Your task to perform on an android device: Open settings on Google Maps Image 0: 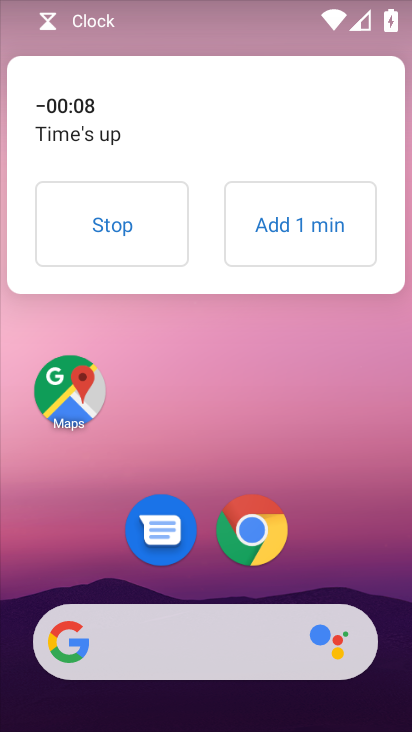
Step 0: drag from (349, 561) to (385, 150)
Your task to perform on an android device: Open settings on Google Maps Image 1: 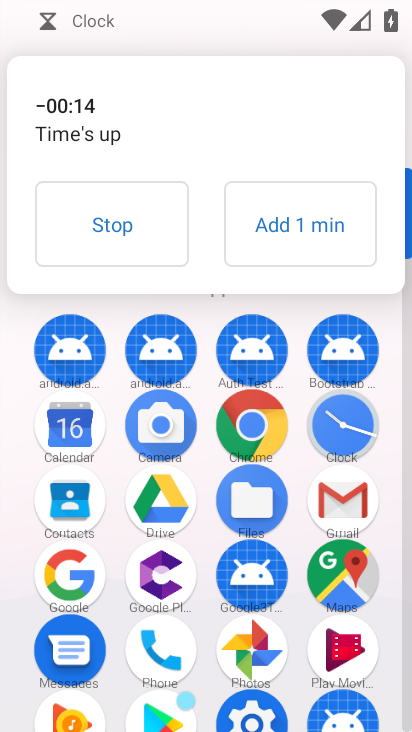
Step 1: click (369, 583)
Your task to perform on an android device: Open settings on Google Maps Image 2: 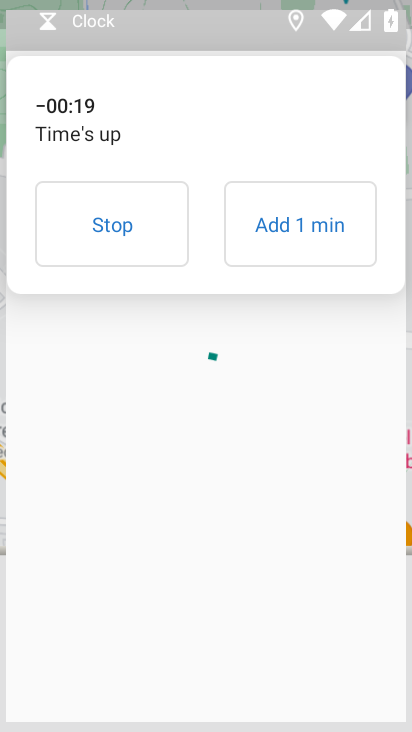
Step 2: click (103, 248)
Your task to perform on an android device: Open settings on Google Maps Image 3: 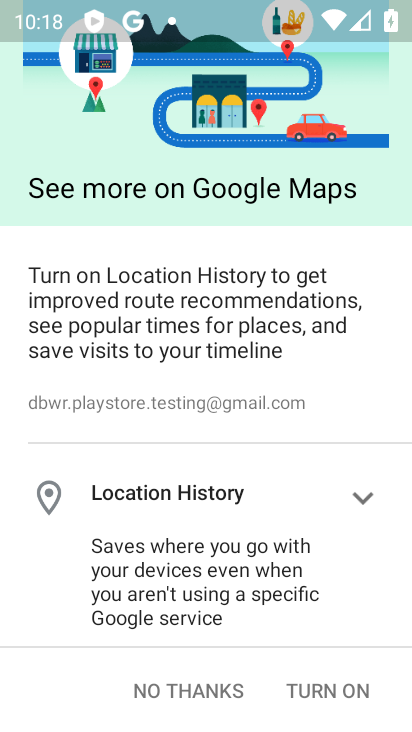
Step 3: click (222, 687)
Your task to perform on an android device: Open settings on Google Maps Image 4: 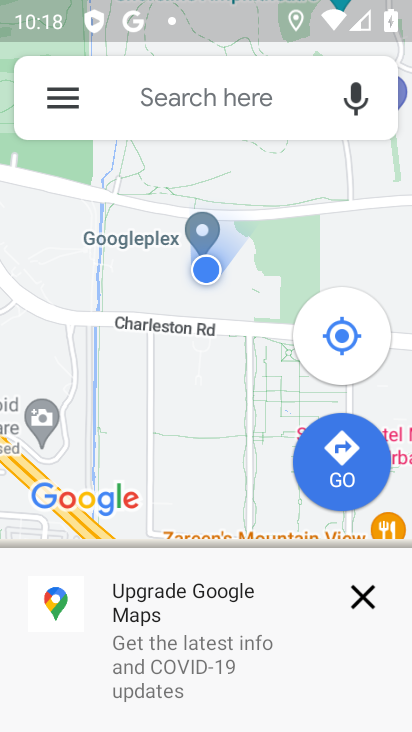
Step 4: click (48, 92)
Your task to perform on an android device: Open settings on Google Maps Image 5: 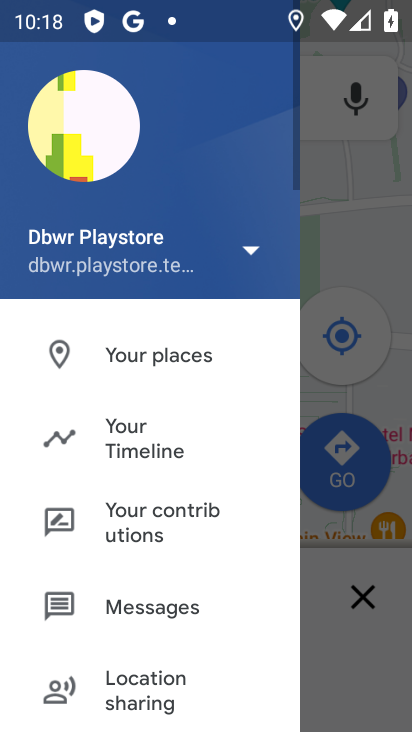
Step 5: drag from (231, 566) to (228, 458)
Your task to perform on an android device: Open settings on Google Maps Image 6: 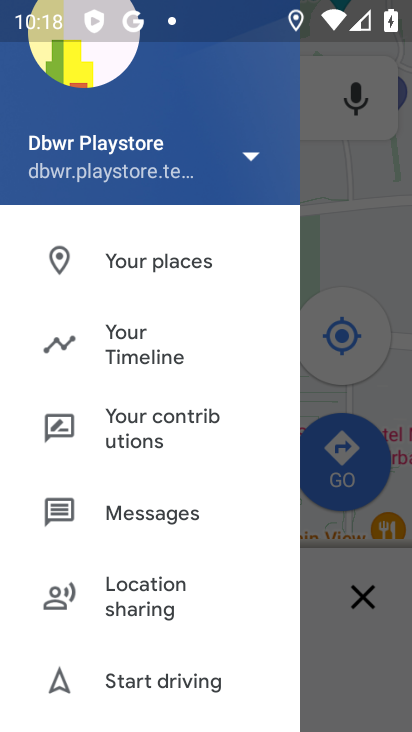
Step 6: drag from (247, 503) to (251, 468)
Your task to perform on an android device: Open settings on Google Maps Image 7: 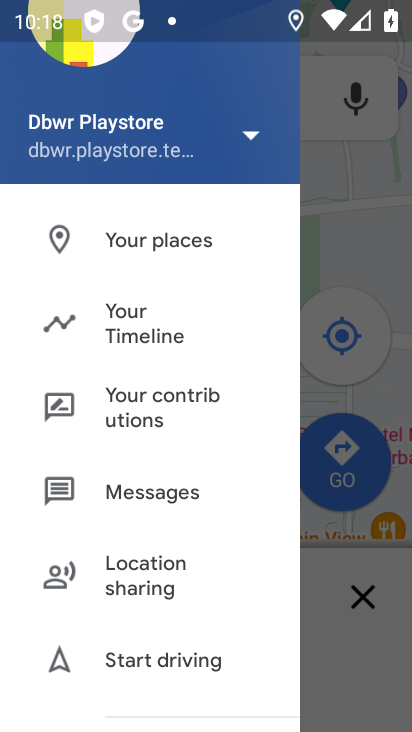
Step 7: drag from (225, 621) to (252, 437)
Your task to perform on an android device: Open settings on Google Maps Image 8: 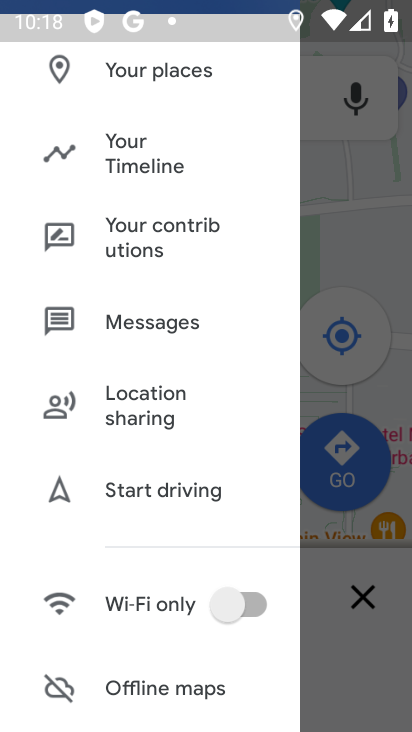
Step 8: drag from (244, 528) to (237, 384)
Your task to perform on an android device: Open settings on Google Maps Image 9: 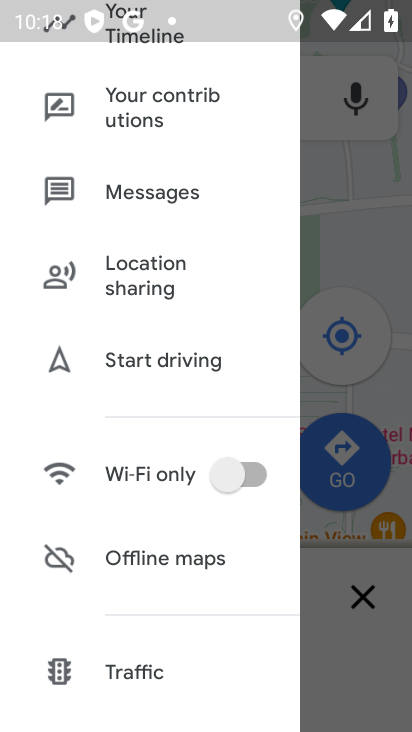
Step 9: drag from (226, 663) to (249, 427)
Your task to perform on an android device: Open settings on Google Maps Image 10: 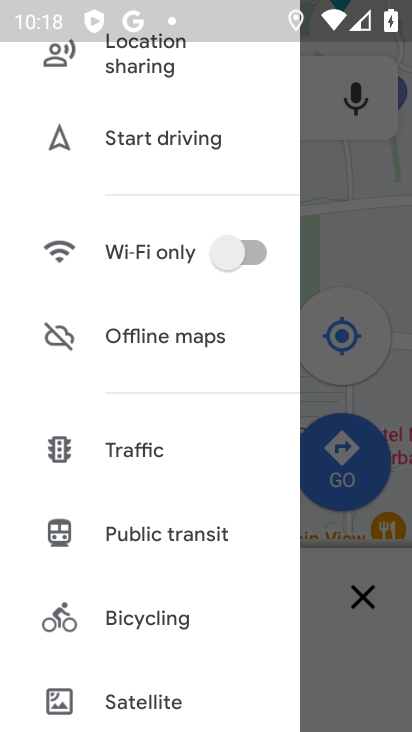
Step 10: drag from (218, 618) to (236, 464)
Your task to perform on an android device: Open settings on Google Maps Image 11: 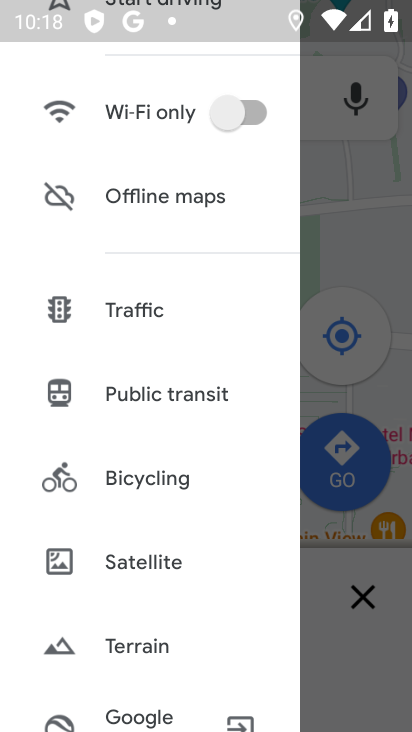
Step 11: drag from (205, 595) to (233, 493)
Your task to perform on an android device: Open settings on Google Maps Image 12: 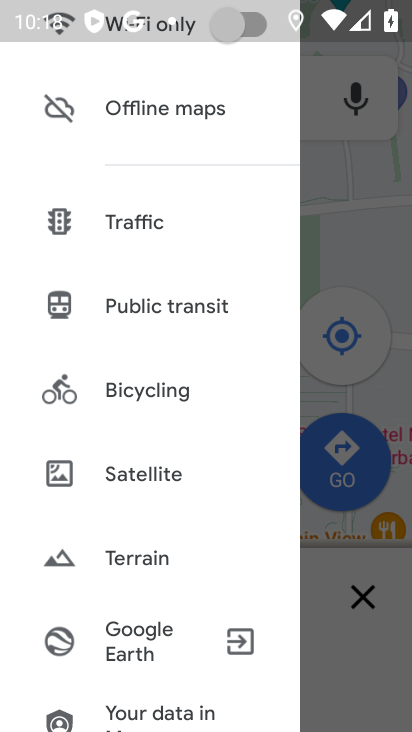
Step 12: drag from (191, 638) to (214, 490)
Your task to perform on an android device: Open settings on Google Maps Image 13: 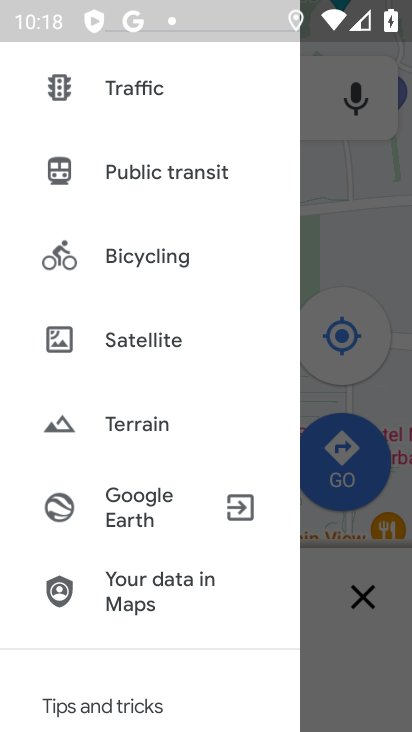
Step 13: drag from (219, 659) to (211, 506)
Your task to perform on an android device: Open settings on Google Maps Image 14: 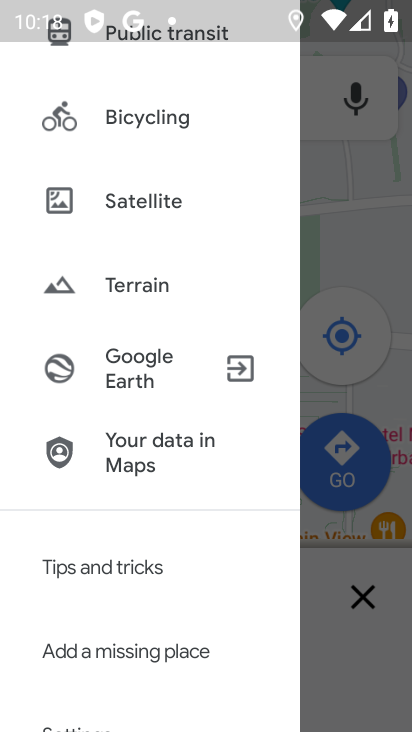
Step 14: drag from (228, 679) to (240, 528)
Your task to perform on an android device: Open settings on Google Maps Image 15: 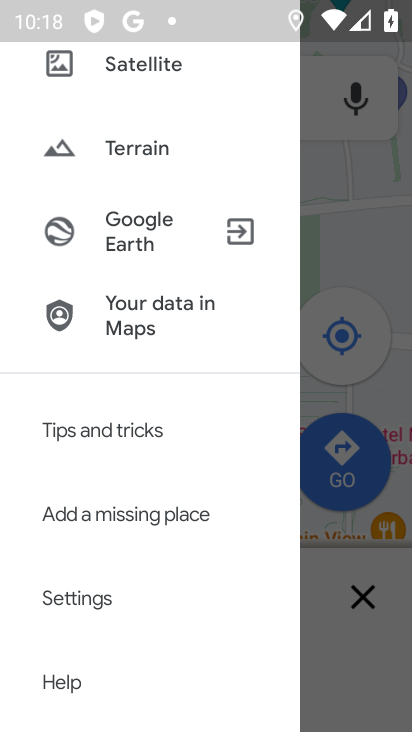
Step 15: click (119, 597)
Your task to perform on an android device: Open settings on Google Maps Image 16: 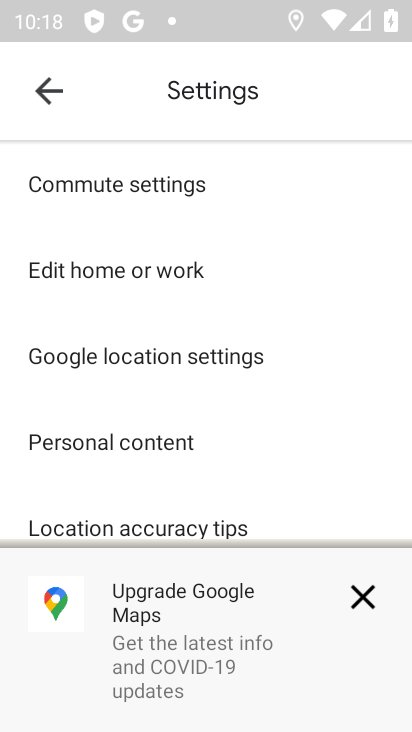
Step 16: task complete